Your task to perform on an android device: Open maps Image 0: 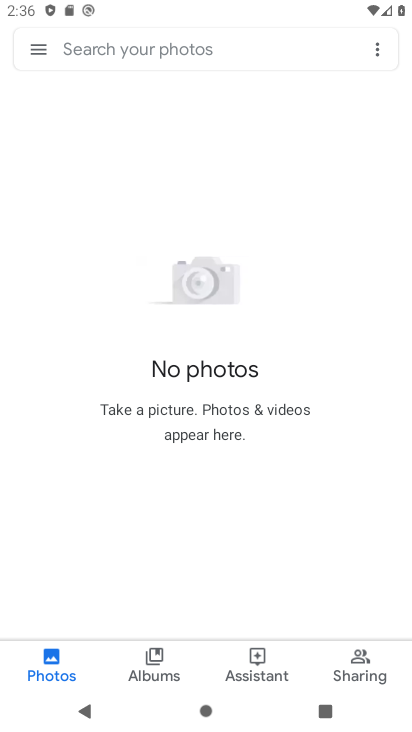
Step 0: press home button
Your task to perform on an android device: Open maps Image 1: 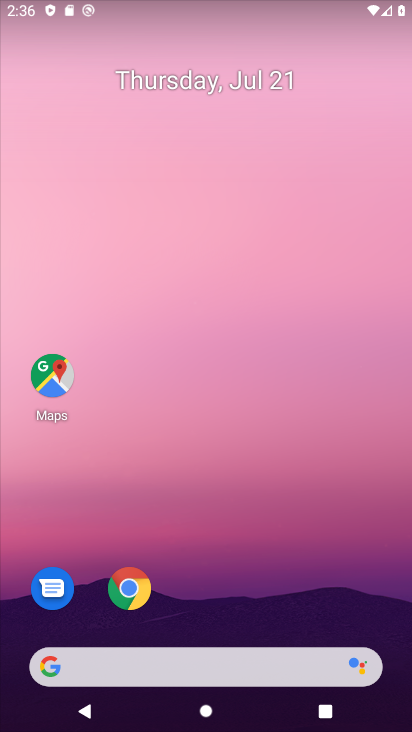
Step 1: click (47, 376)
Your task to perform on an android device: Open maps Image 2: 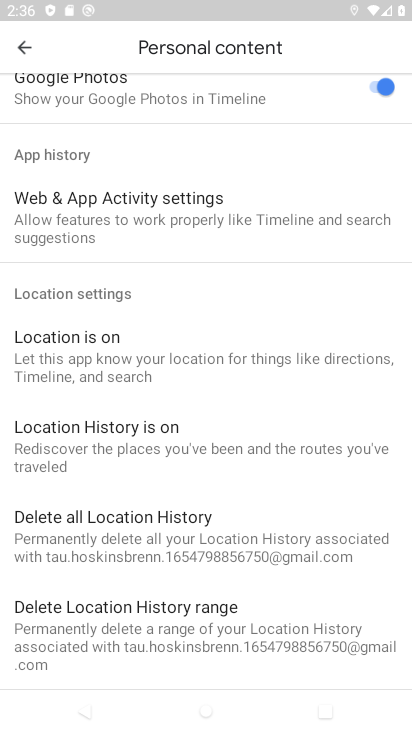
Step 2: click (27, 47)
Your task to perform on an android device: Open maps Image 3: 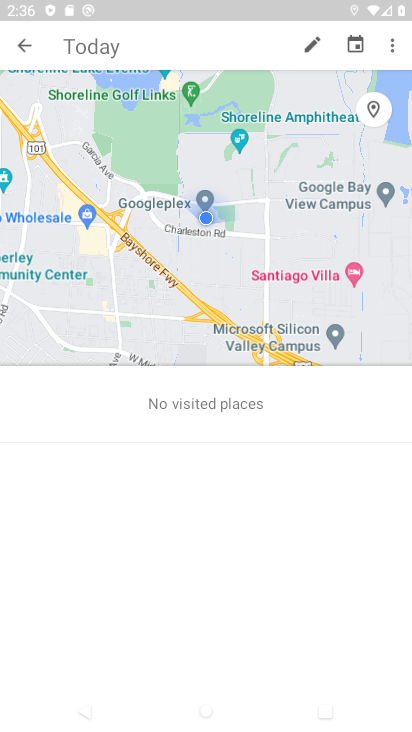
Step 3: click (20, 45)
Your task to perform on an android device: Open maps Image 4: 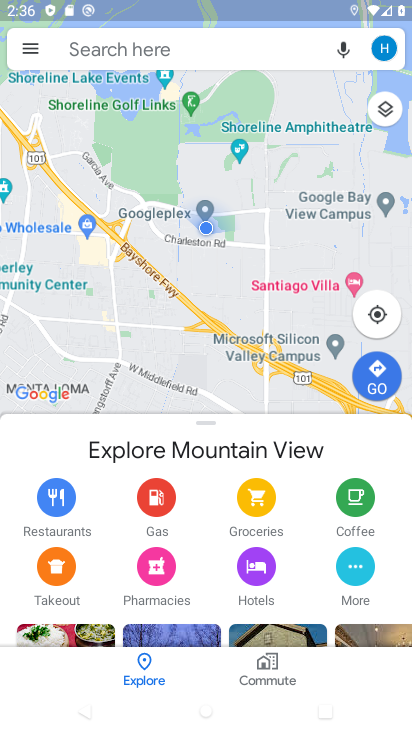
Step 4: task complete